Your task to perform on an android device: Open ESPN.com Image 0: 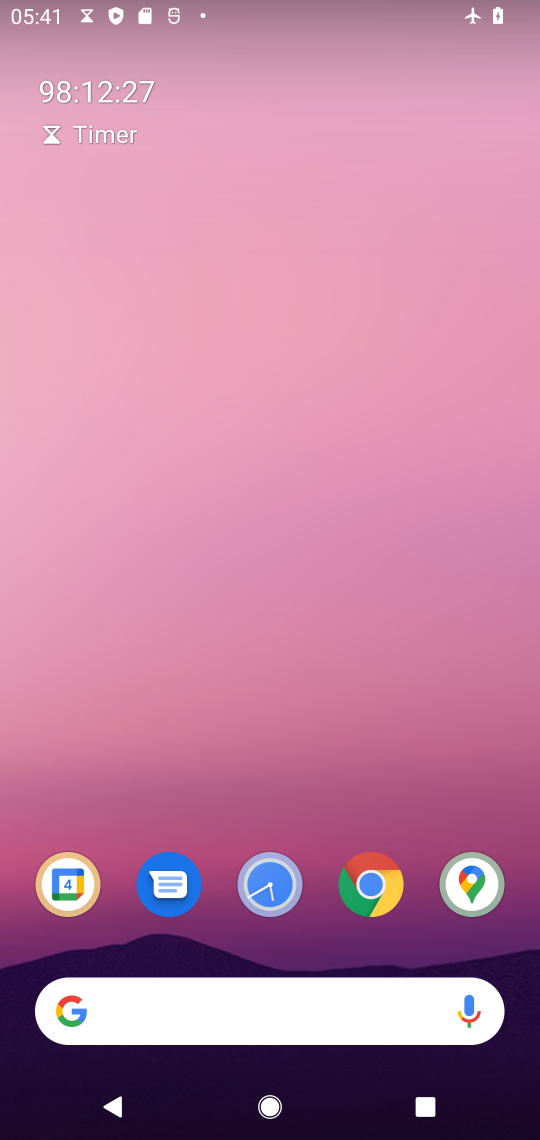
Step 0: drag from (303, 876) to (447, 171)
Your task to perform on an android device: Open ESPN.com Image 1: 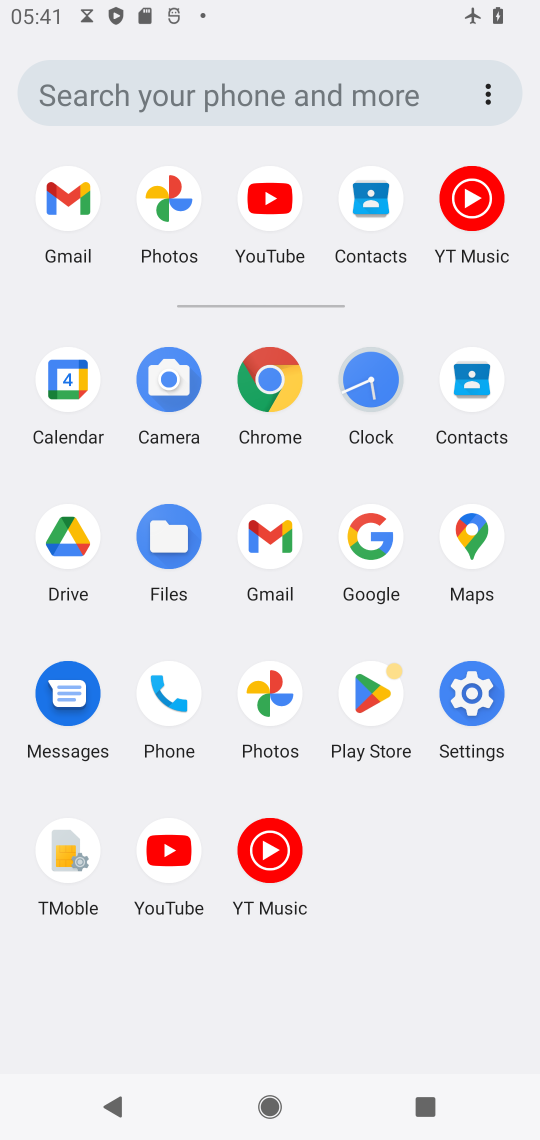
Step 1: click (286, 367)
Your task to perform on an android device: Open ESPN.com Image 2: 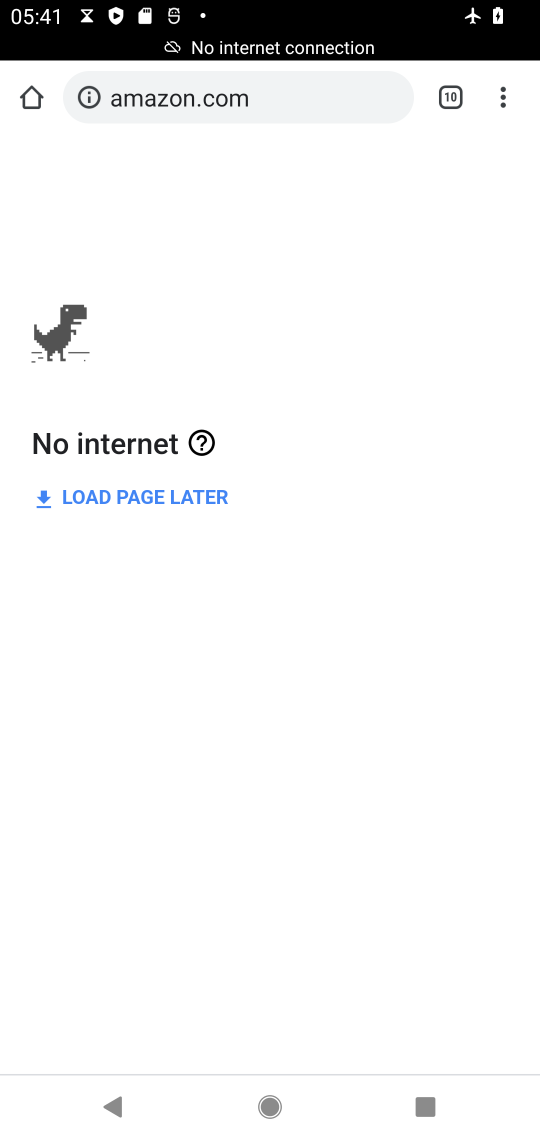
Step 2: click (517, 89)
Your task to perform on an android device: Open ESPN.com Image 3: 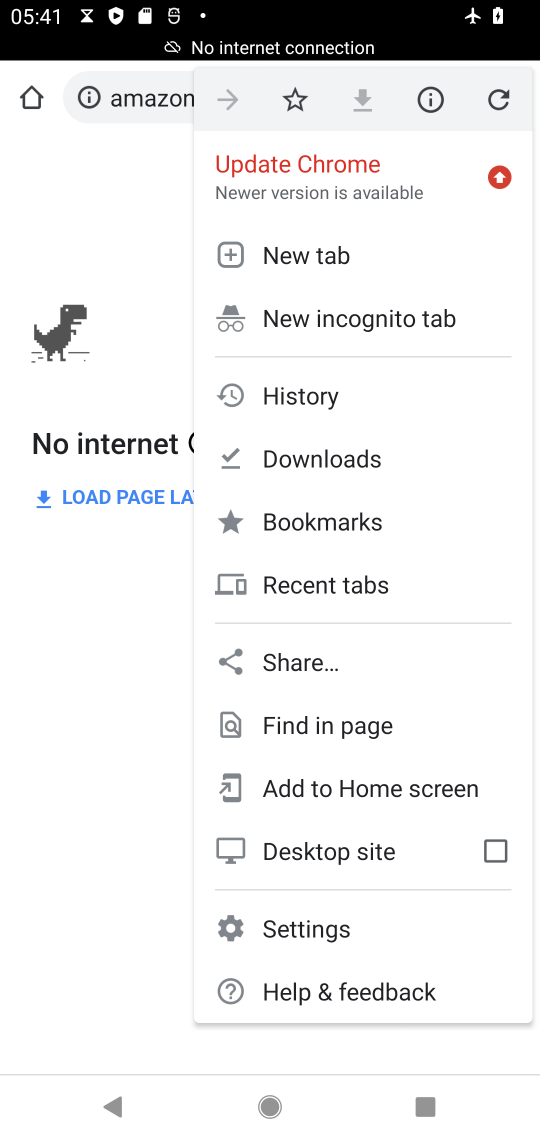
Step 3: click (291, 259)
Your task to perform on an android device: Open ESPN.com Image 4: 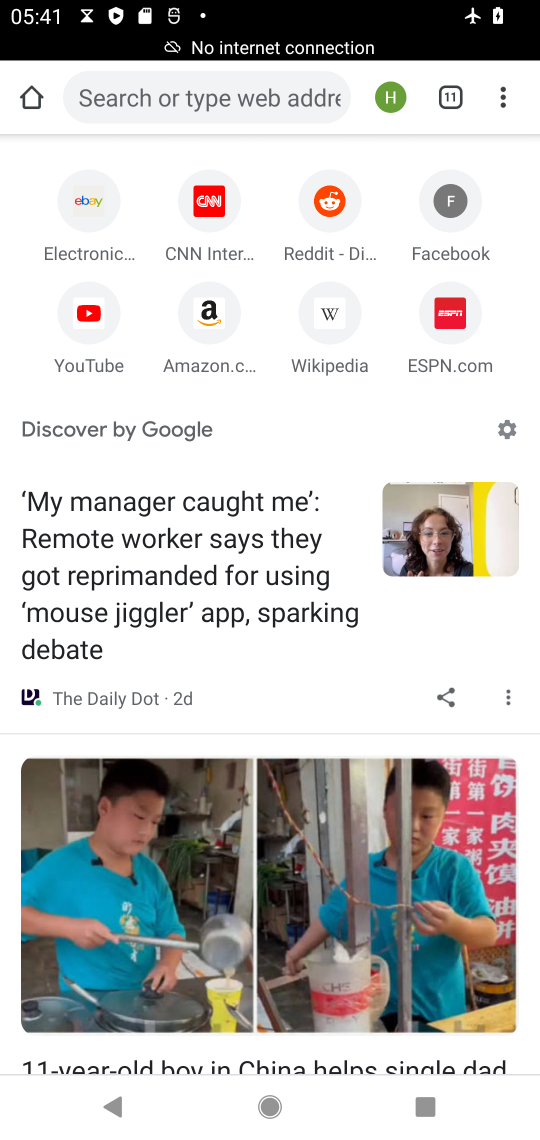
Step 4: click (448, 319)
Your task to perform on an android device: Open ESPN.com Image 5: 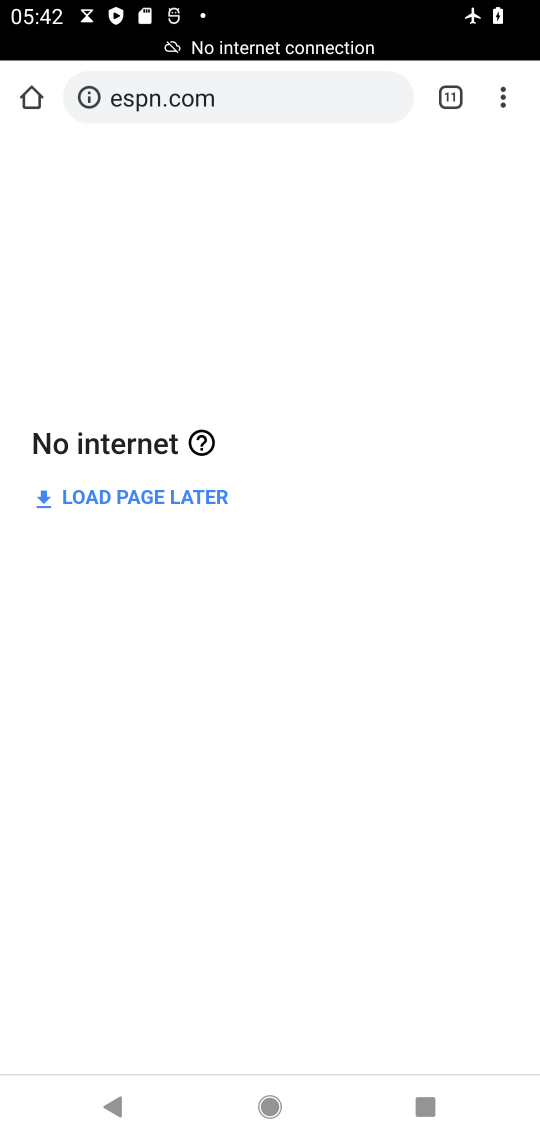
Step 5: task complete